Your task to perform on an android device: turn on sleep mode Image 0: 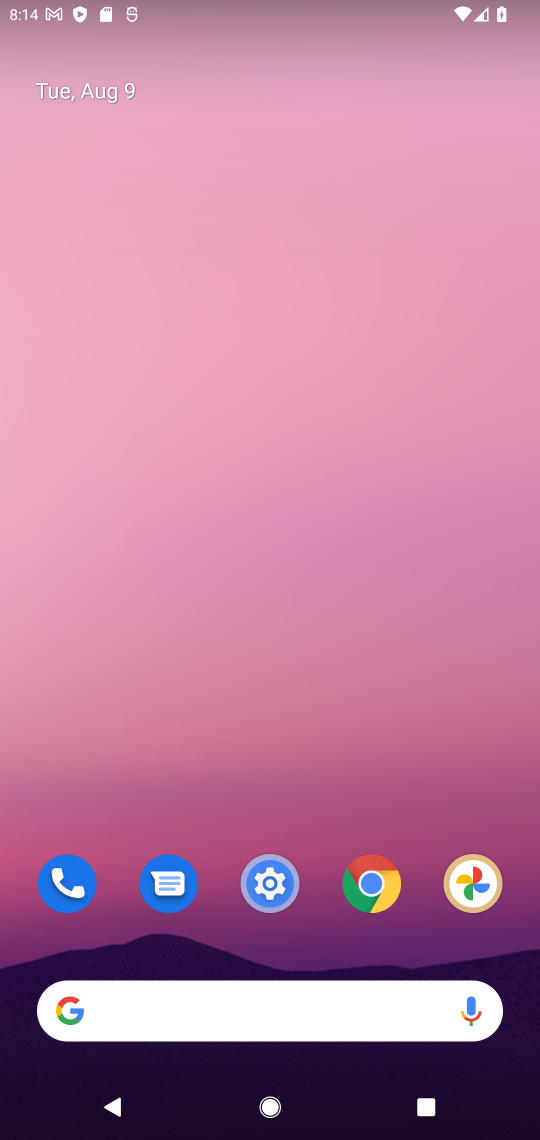
Step 0: drag from (277, 637) to (335, 131)
Your task to perform on an android device: turn on sleep mode Image 1: 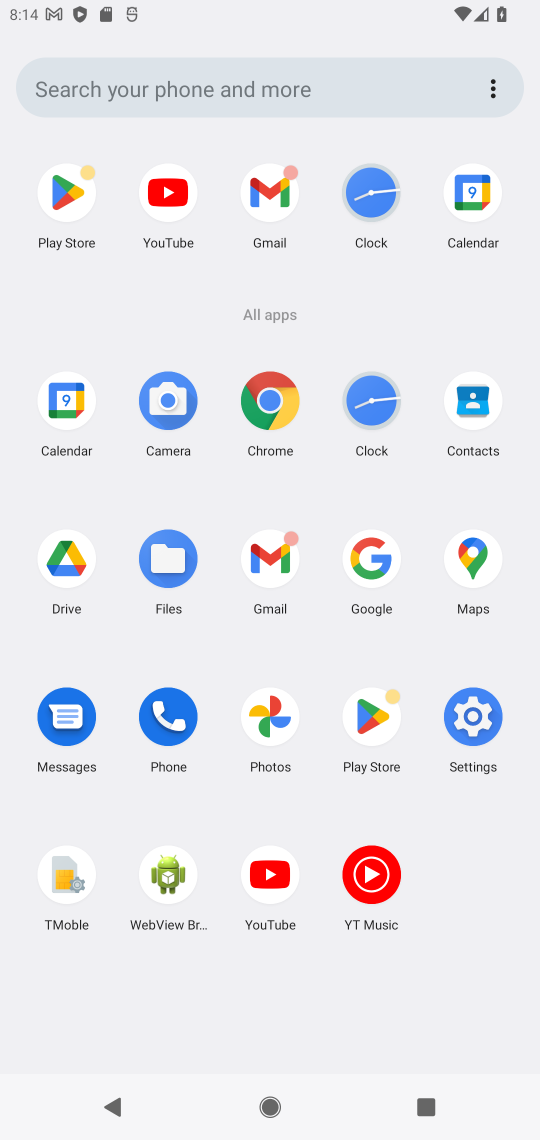
Step 1: click (486, 717)
Your task to perform on an android device: turn on sleep mode Image 2: 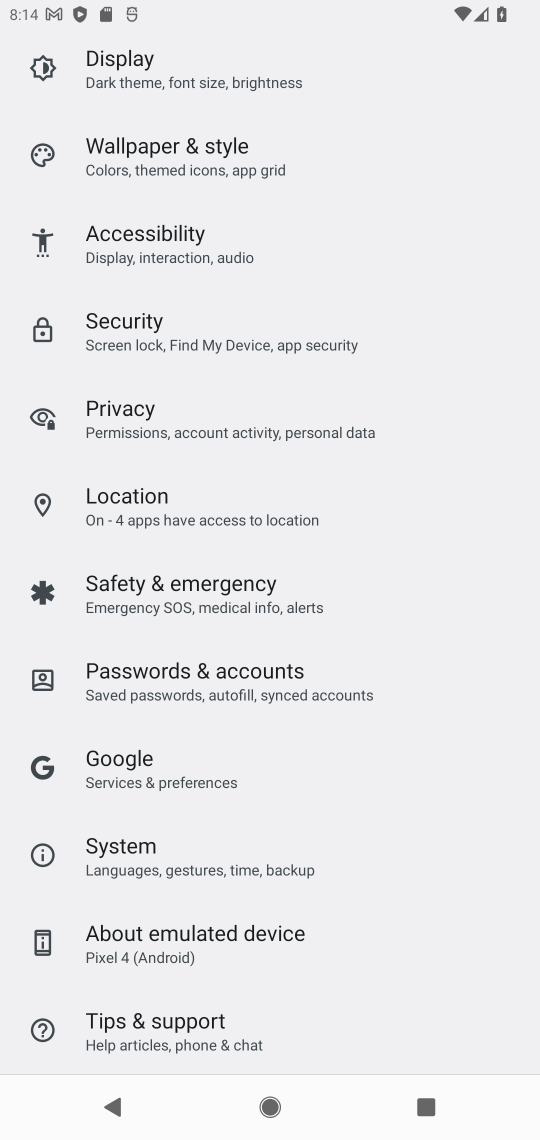
Step 2: click (196, 82)
Your task to perform on an android device: turn on sleep mode Image 3: 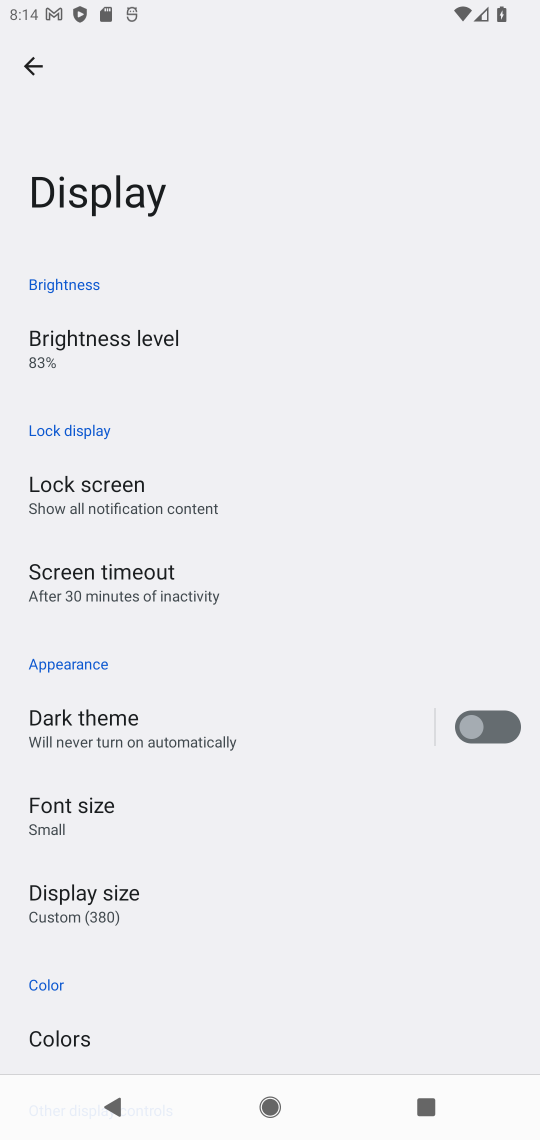
Step 3: click (128, 602)
Your task to perform on an android device: turn on sleep mode Image 4: 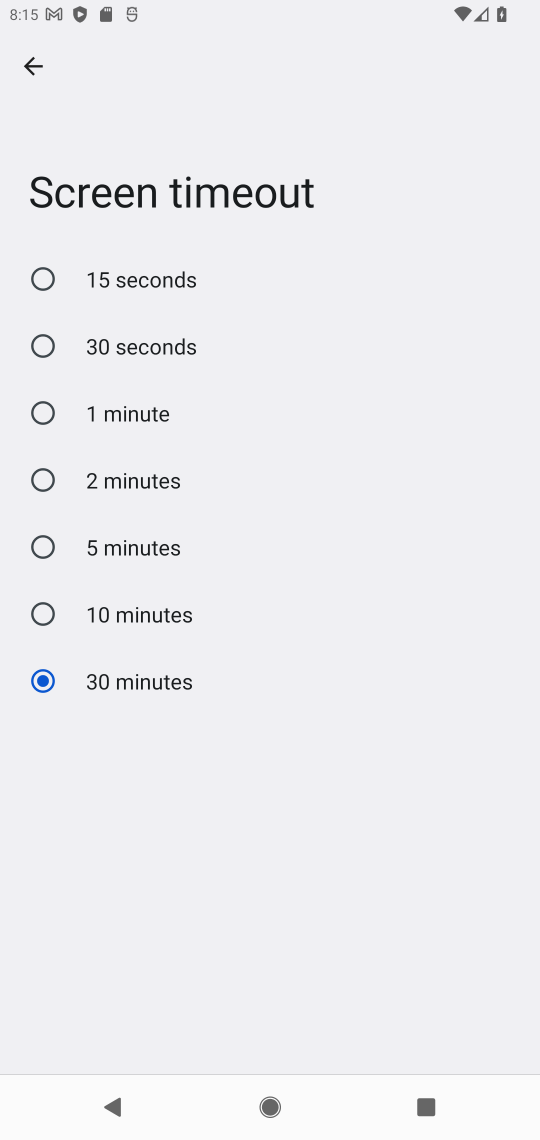
Step 4: task complete